Your task to perform on an android device: Go to wifi settings Image 0: 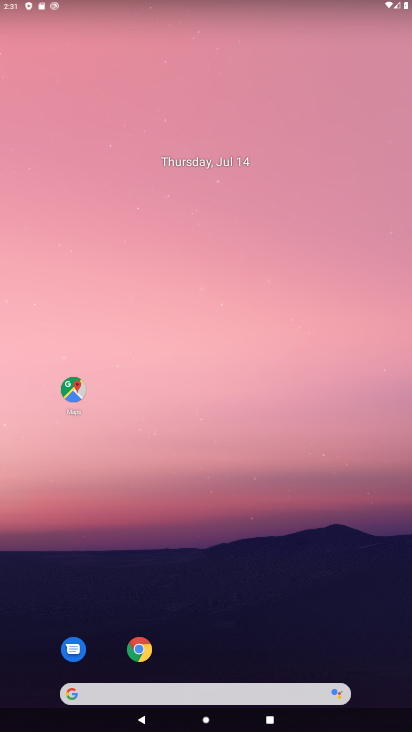
Step 0: click (388, 342)
Your task to perform on an android device: Go to wifi settings Image 1: 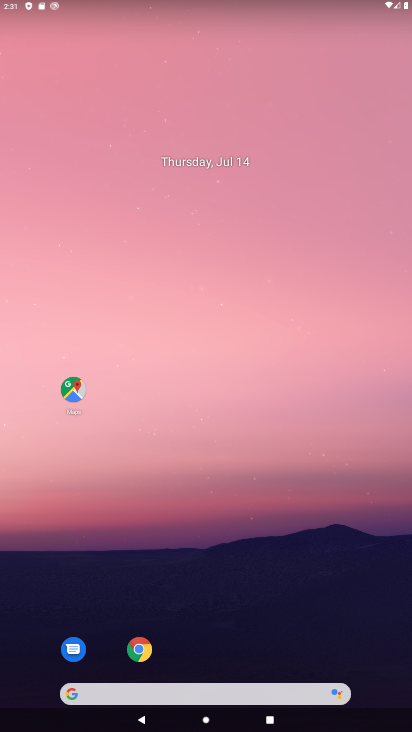
Step 1: drag from (223, 634) to (265, 14)
Your task to perform on an android device: Go to wifi settings Image 2: 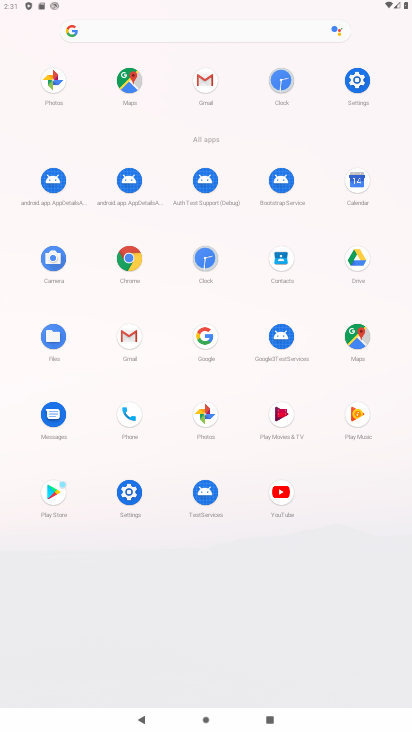
Step 2: click (129, 491)
Your task to perform on an android device: Go to wifi settings Image 3: 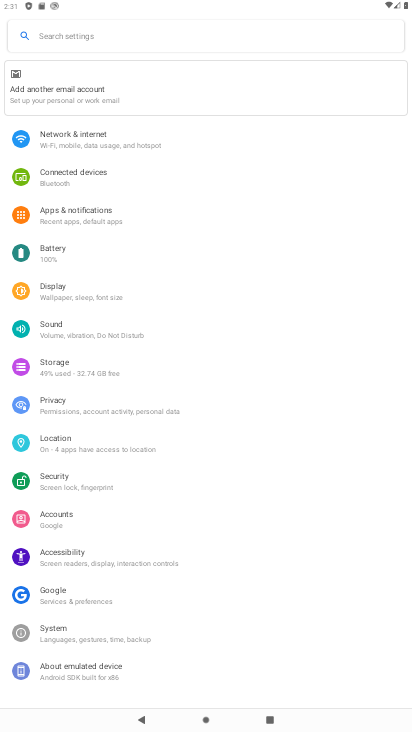
Step 3: click (94, 137)
Your task to perform on an android device: Go to wifi settings Image 4: 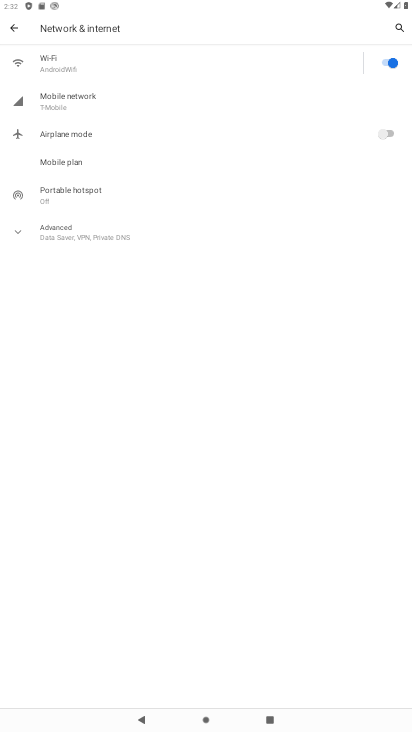
Step 4: click (171, 54)
Your task to perform on an android device: Go to wifi settings Image 5: 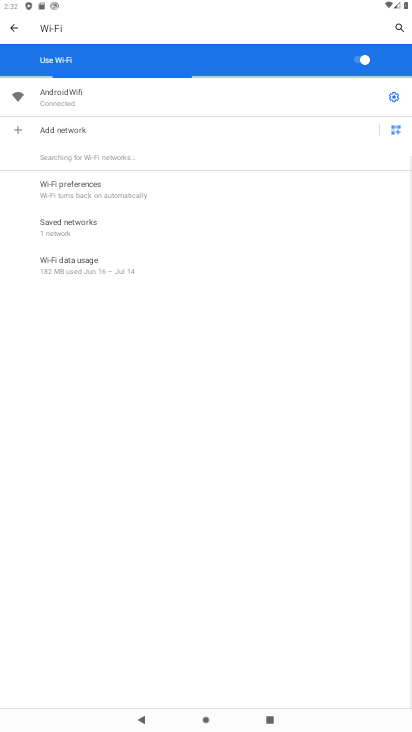
Step 5: task complete